Your task to perform on an android device: Go to ESPN.com Image 0: 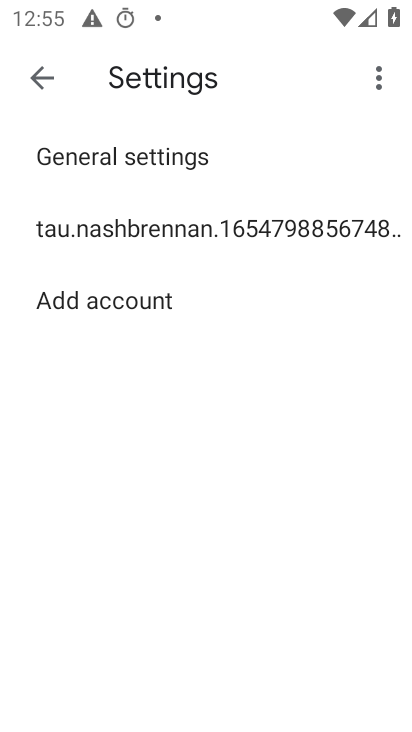
Step 0: press home button
Your task to perform on an android device: Go to ESPN.com Image 1: 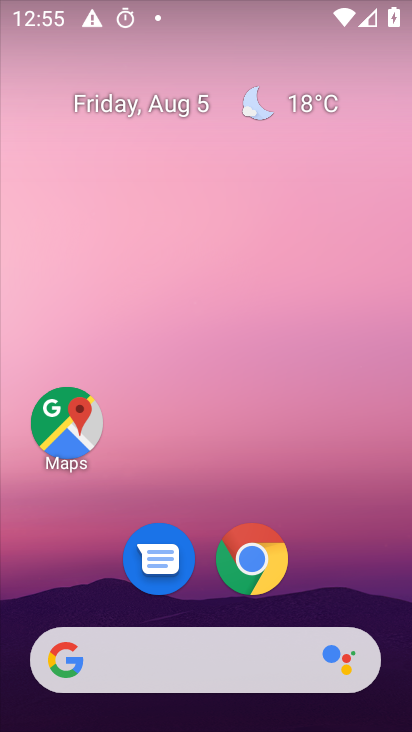
Step 1: click (152, 654)
Your task to perform on an android device: Go to ESPN.com Image 2: 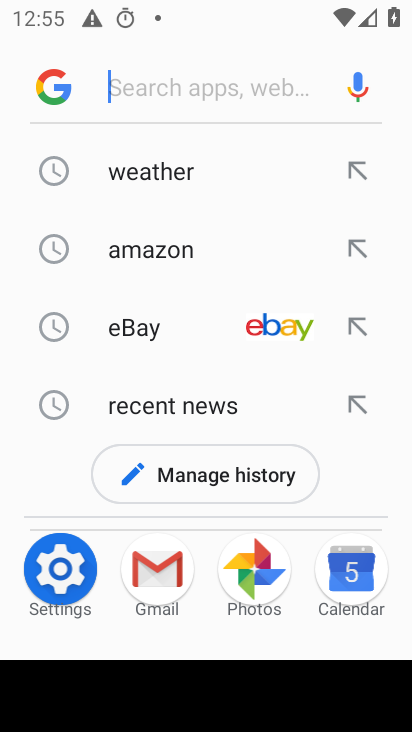
Step 2: type "ESPN.com"
Your task to perform on an android device: Go to ESPN.com Image 3: 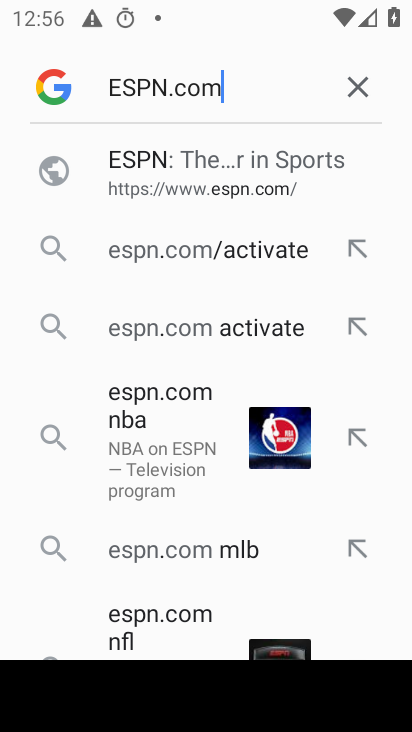
Step 3: click (182, 168)
Your task to perform on an android device: Go to ESPN.com Image 4: 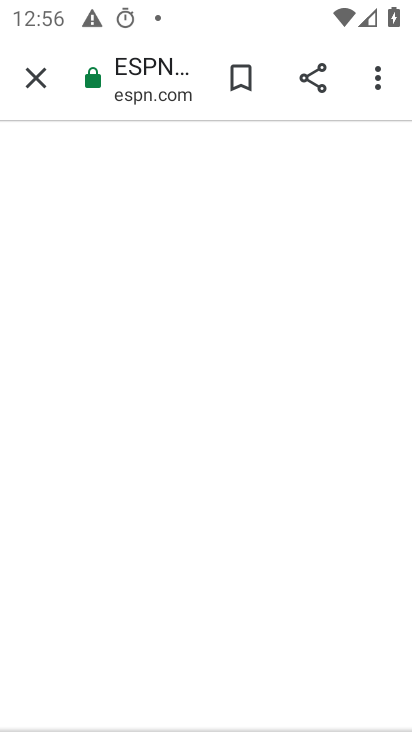
Step 4: task complete